Your task to perform on an android device: Open my contact list Image 0: 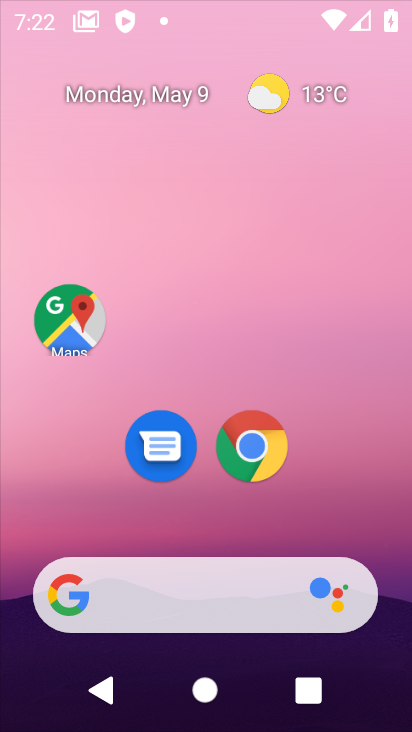
Step 0: click (386, 479)
Your task to perform on an android device: Open my contact list Image 1: 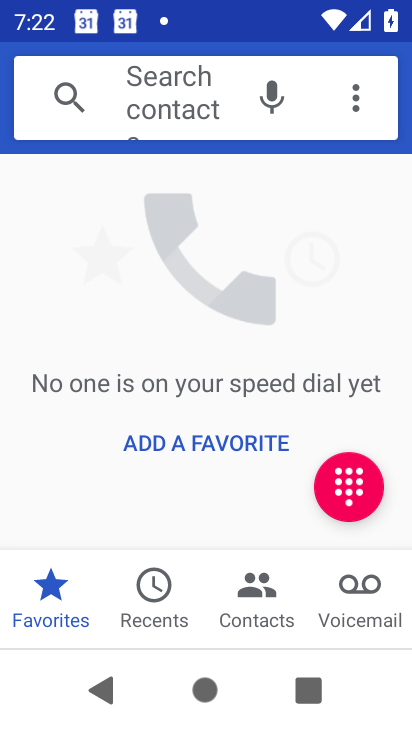
Step 1: press home button
Your task to perform on an android device: Open my contact list Image 2: 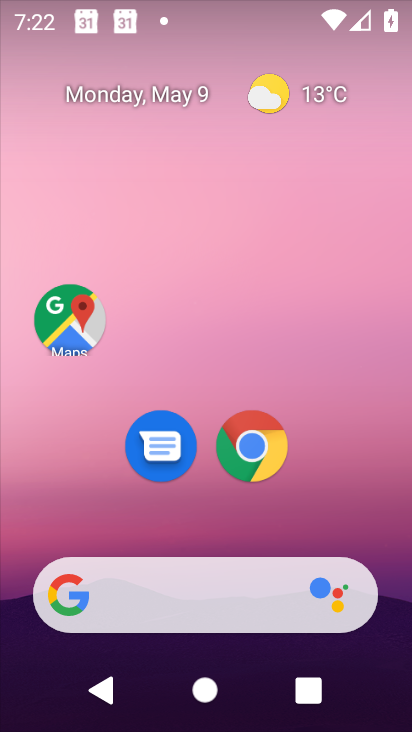
Step 2: drag from (322, 522) to (321, 159)
Your task to perform on an android device: Open my contact list Image 3: 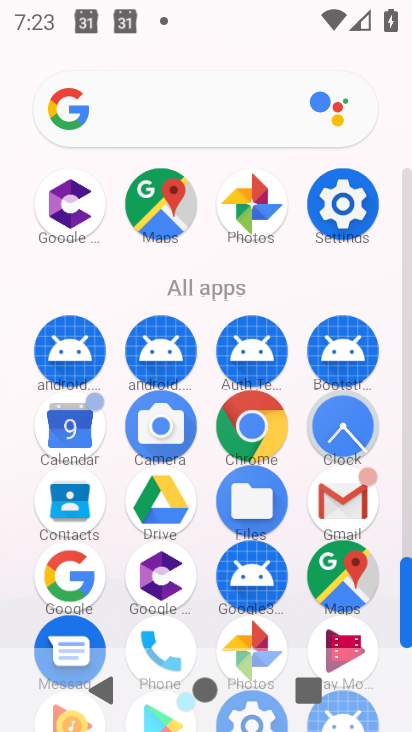
Step 3: drag from (304, 577) to (327, 204)
Your task to perform on an android device: Open my contact list Image 4: 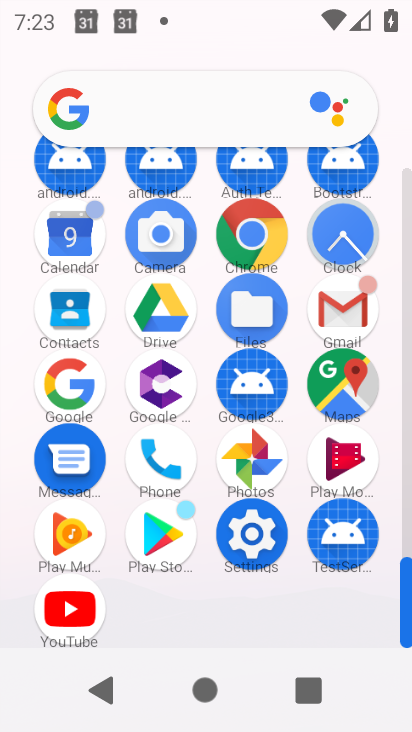
Step 4: click (55, 319)
Your task to perform on an android device: Open my contact list Image 5: 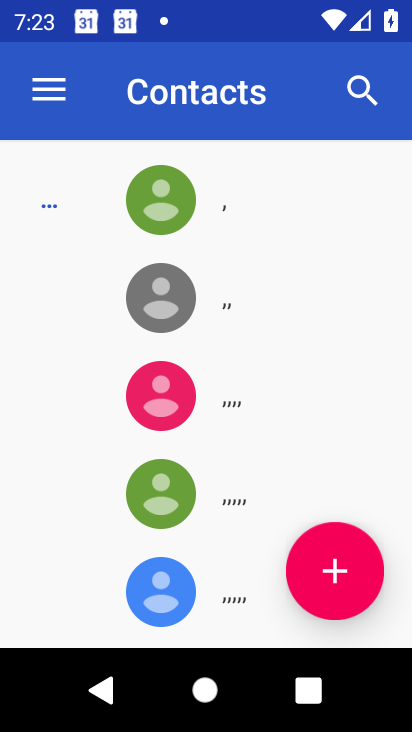
Step 5: task complete